Your task to perform on an android device: Open location settings Image 0: 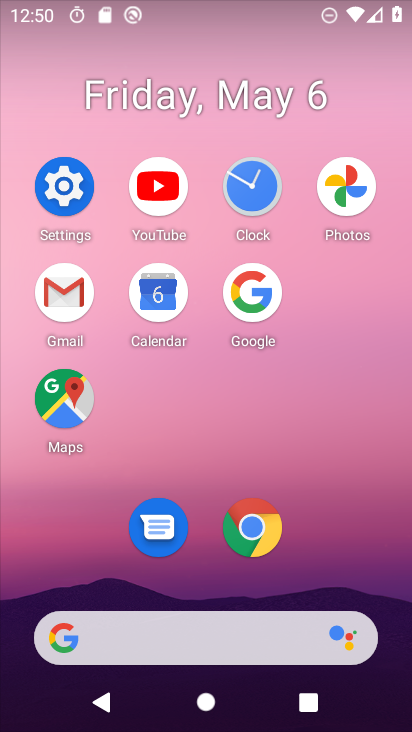
Step 0: click (41, 197)
Your task to perform on an android device: Open location settings Image 1: 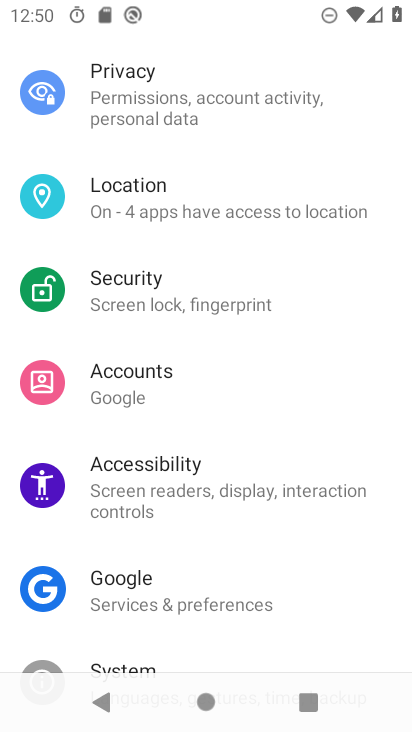
Step 1: click (174, 206)
Your task to perform on an android device: Open location settings Image 2: 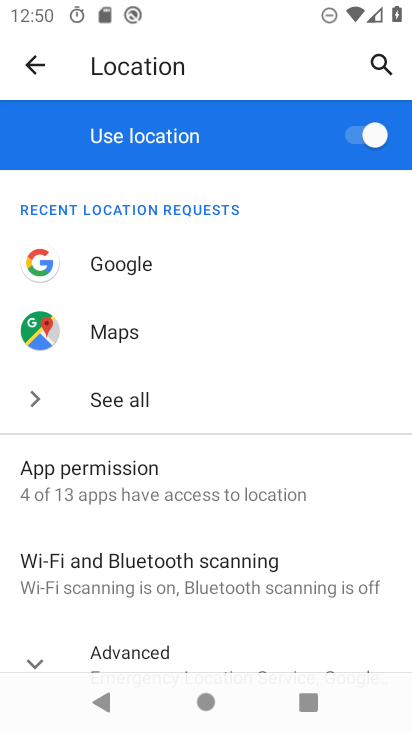
Step 2: task complete